Your task to perform on an android device: refresh tabs in the chrome app Image 0: 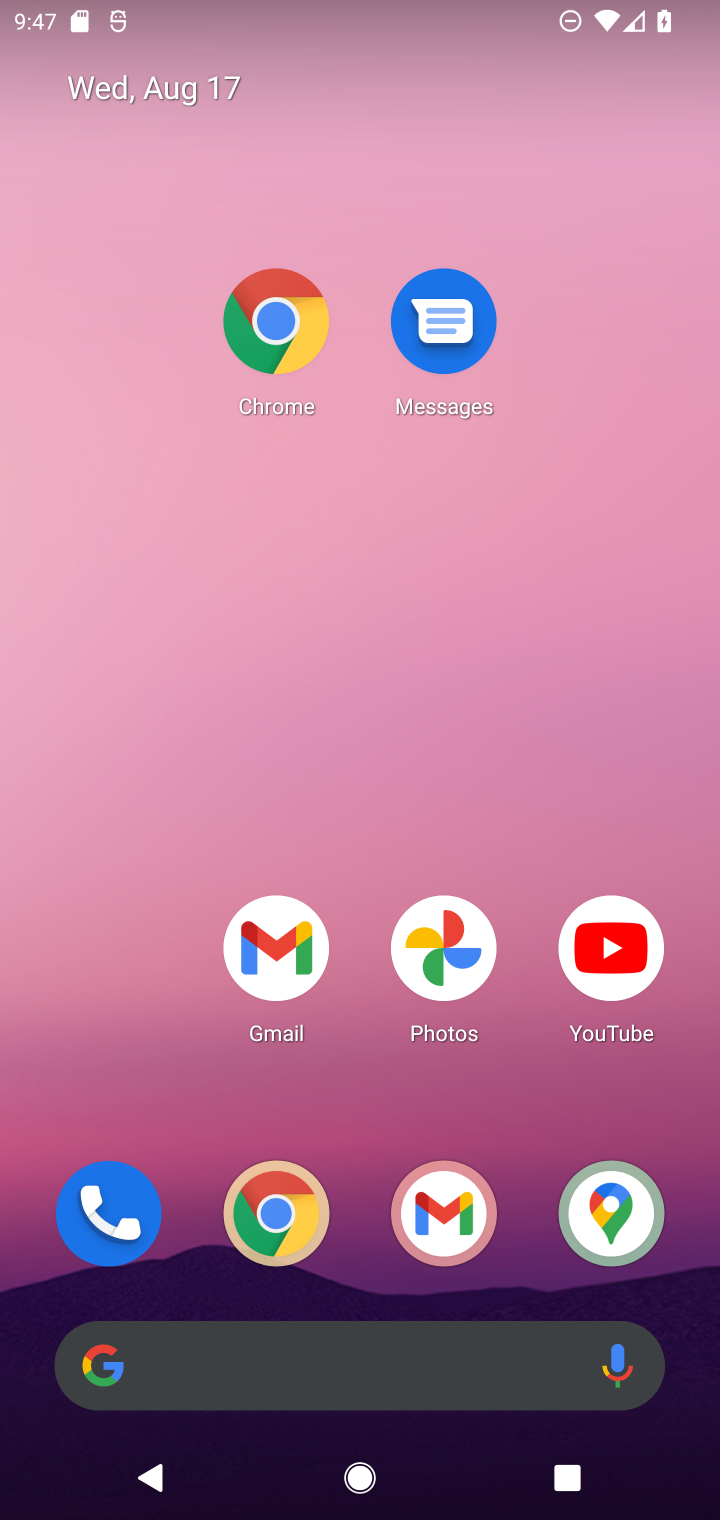
Step 0: click (312, 1229)
Your task to perform on an android device: refresh tabs in the chrome app Image 1: 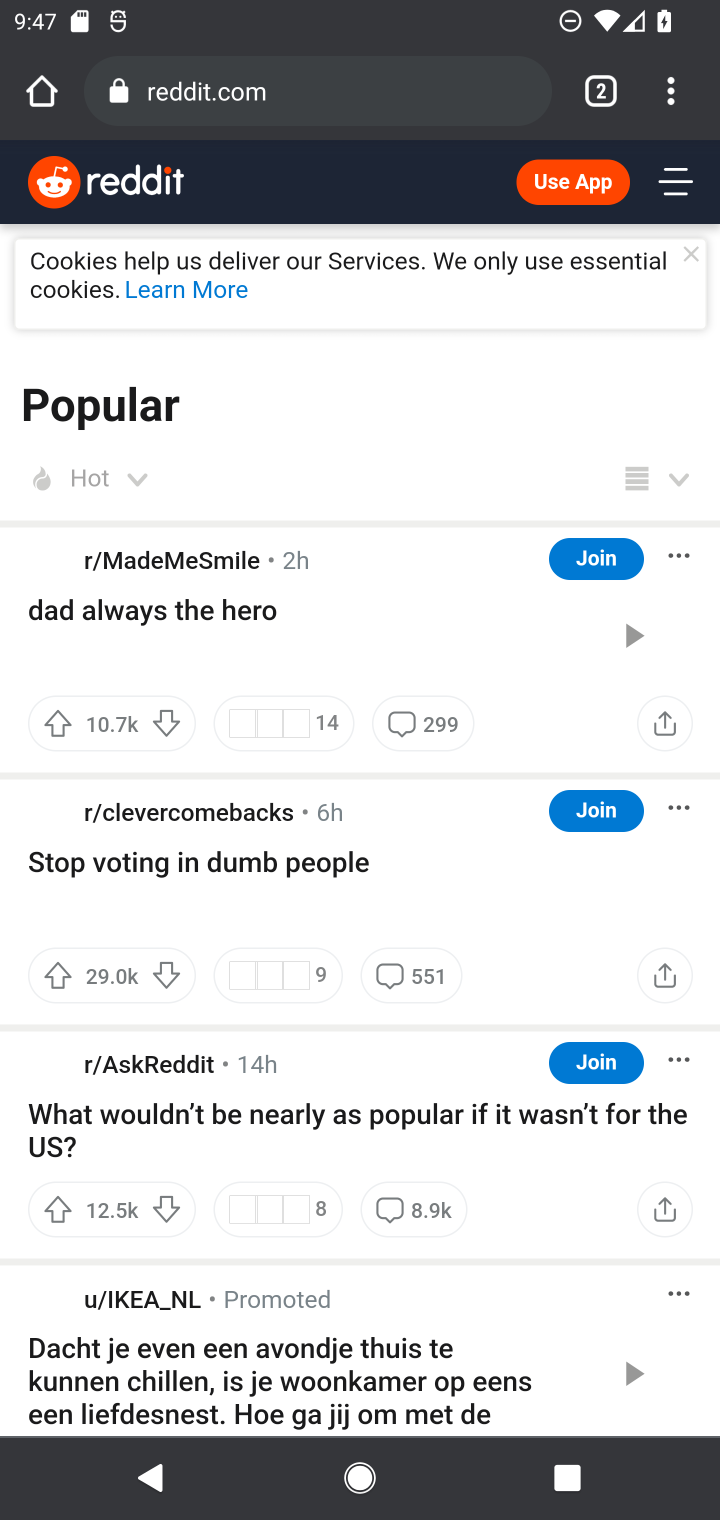
Step 1: click (652, 74)
Your task to perform on an android device: refresh tabs in the chrome app Image 2: 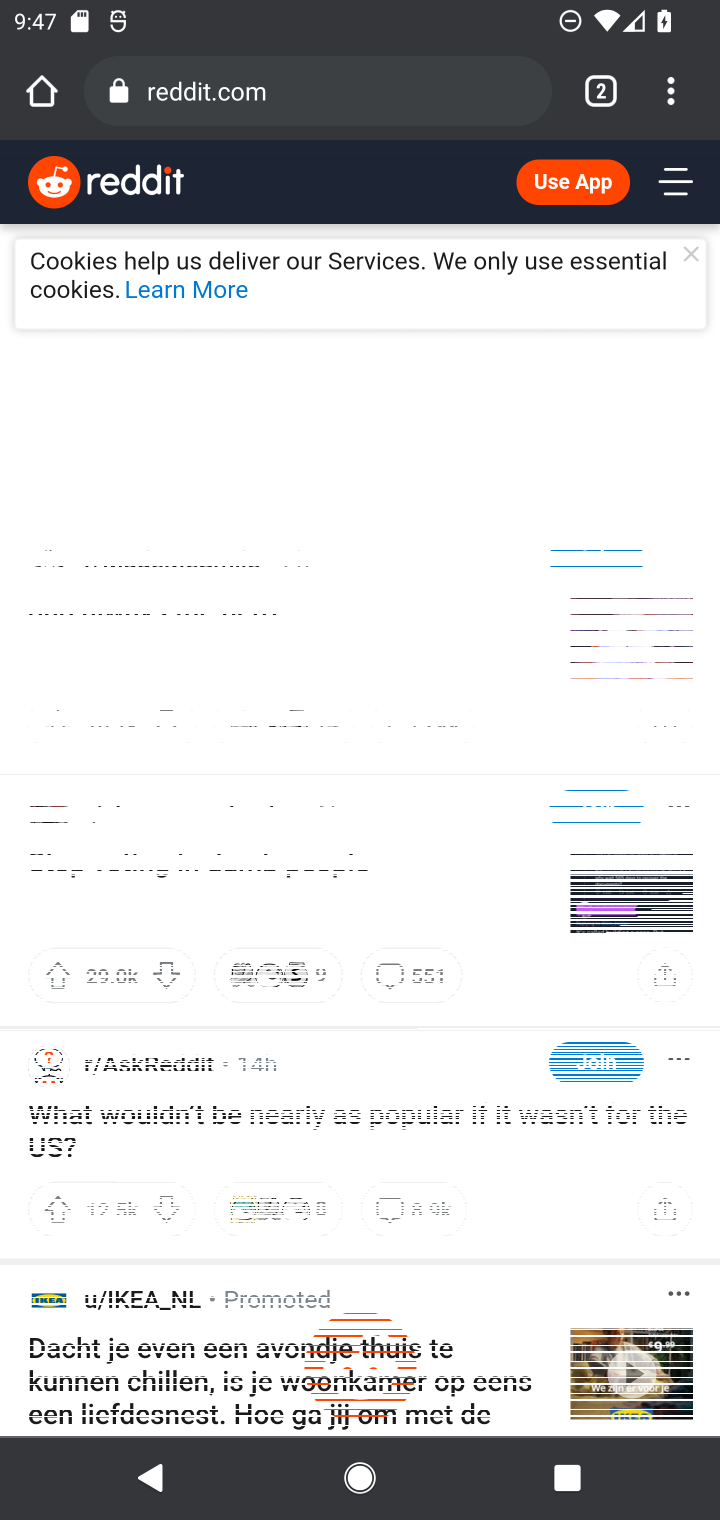
Step 2: task complete